Your task to perform on an android device: Open the web browser Image 0: 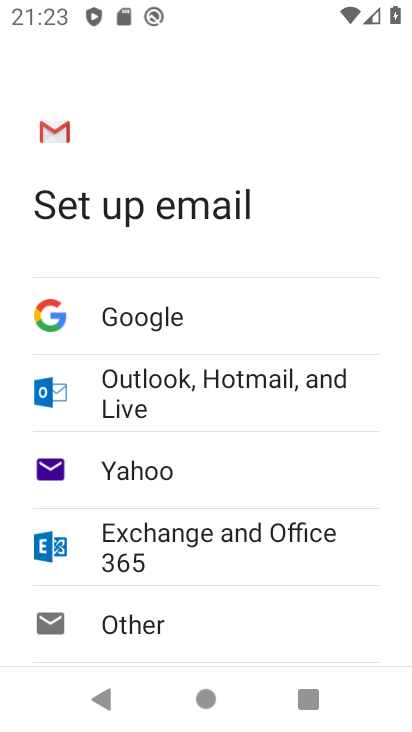
Step 0: press home button
Your task to perform on an android device: Open the web browser Image 1: 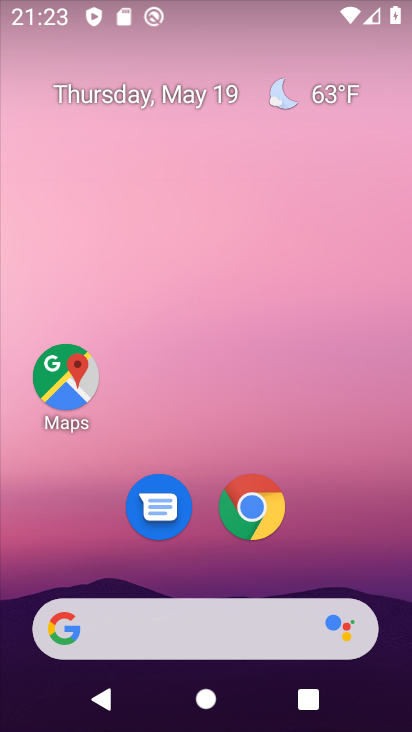
Step 1: click (252, 540)
Your task to perform on an android device: Open the web browser Image 2: 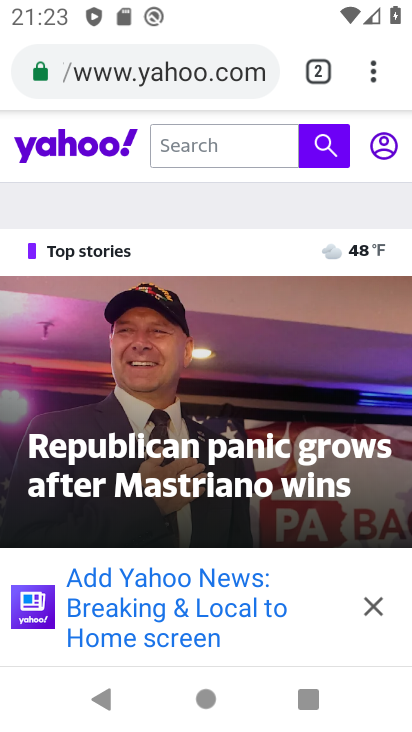
Step 2: task complete